Your task to perform on an android device: What's on my calendar tomorrow? Image 0: 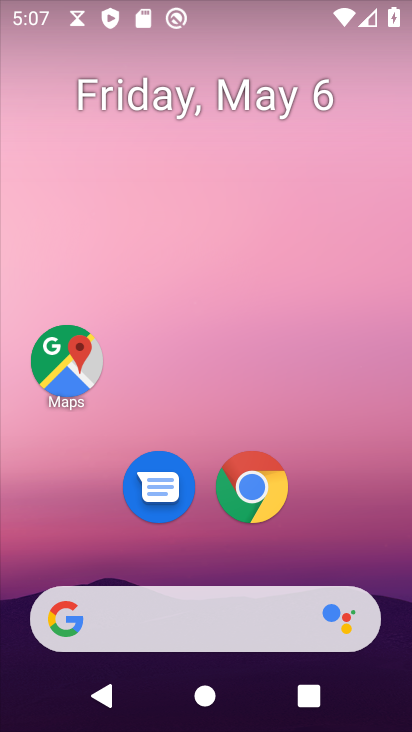
Step 0: drag from (295, 554) to (229, 9)
Your task to perform on an android device: What's on my calendar tomorrow? Image 1: 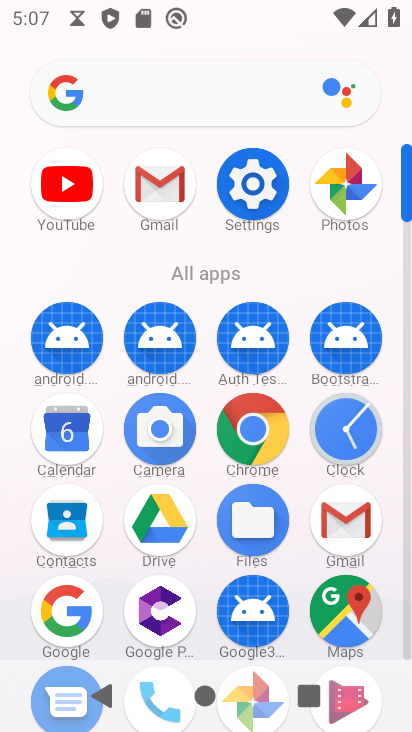
Step 1: click (66, 429)
Your task to perform on an android device: What's on my calendar tomorrow? Image 2: 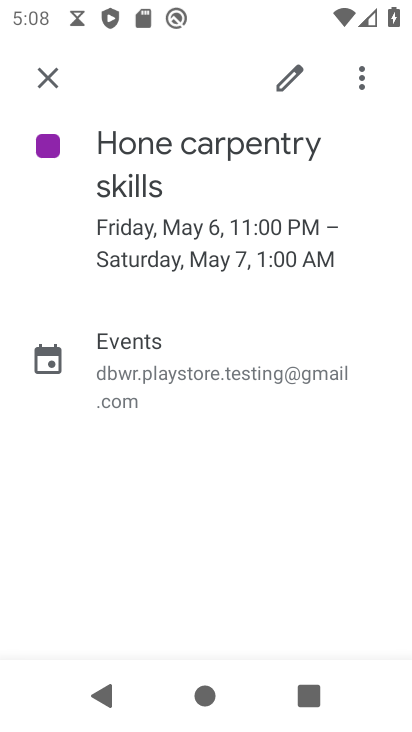
Step 2: press back button
Your task to perform on an android device: What's on my calendar tomorrow? Image 3: 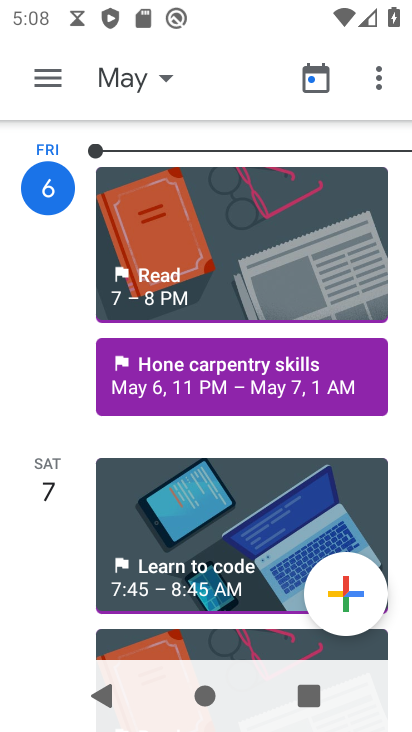
Step 3: drag from (234, 567) to (247, 404)
Your task to perform on an android device: What's on my calendar tomorrow? Image 4: 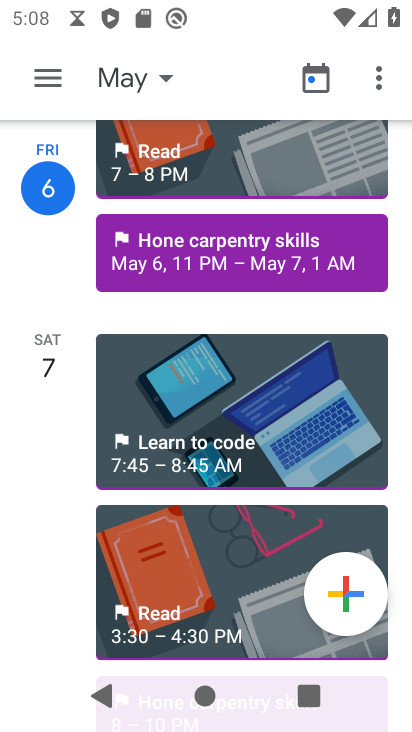
Step 4: click (231, 460)
Your task to perform on an android device: What's on my calendar tomorrow? Image 5: 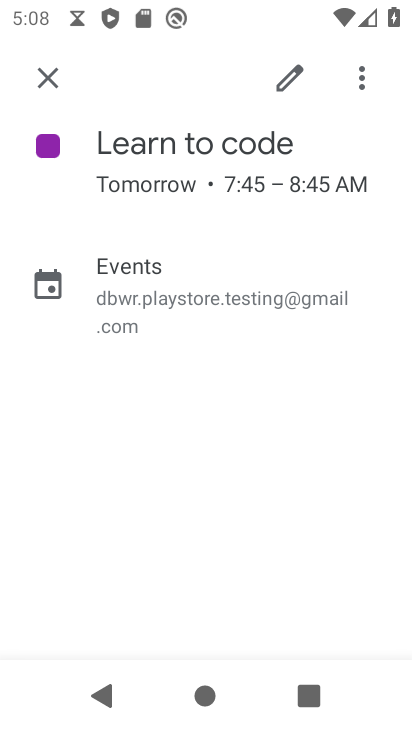
Step 5: task complete